Your task to perform on an android device: Go to Wikipedia Image 0: 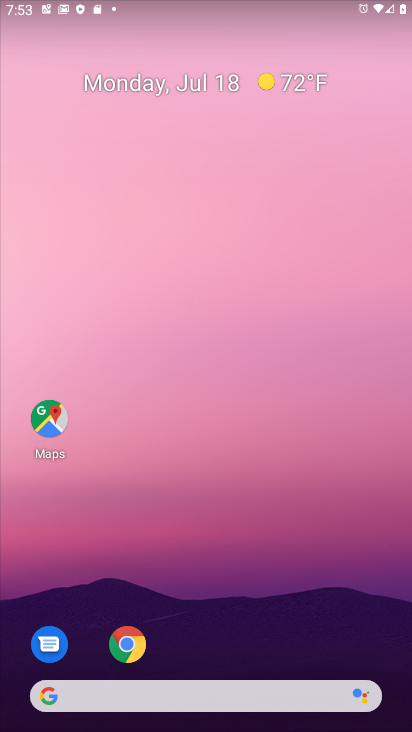
Step 0: press home button
Your task to perform on an android device: Go to Wikipedia Image 1: 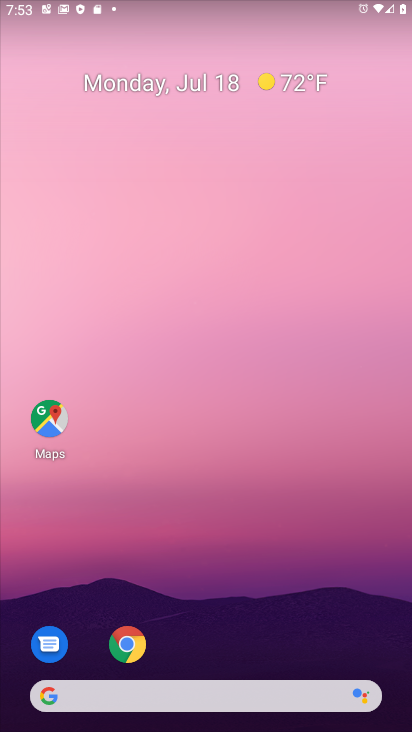
Step 1: drag from (376, 670) to (252, 52)
Your task to perform on an android device: Go to Wikipedia Image 2: 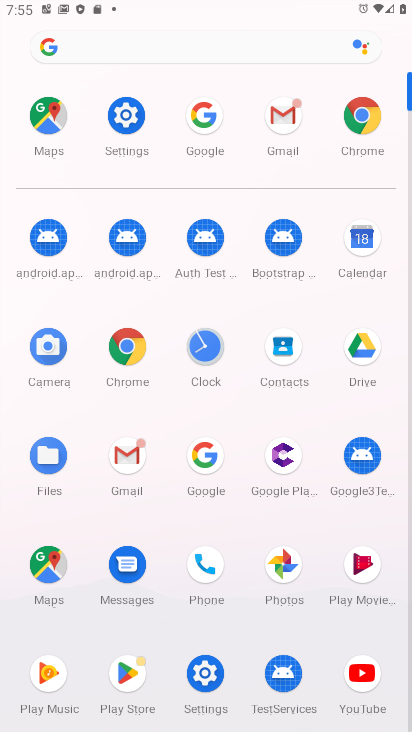
Step 2: click (204, 464)
Your task to perform on an android device: Go to Wikipedia Image 3: 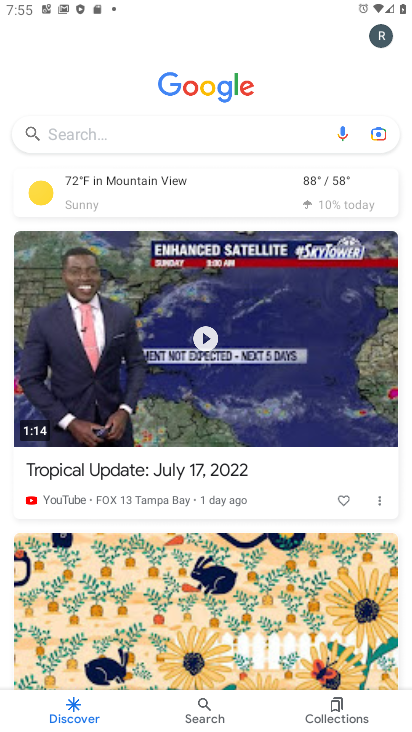
Step 3: click (114, 136)
Your task to perform on an android device: Go to Wikipedia Image 4: 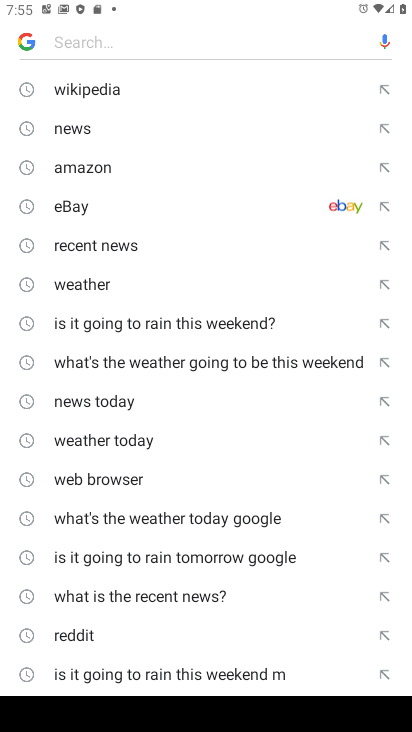
Step 4: click (112, 89)
Your task to perform on an android device: Go to Wikipedia Image 5: 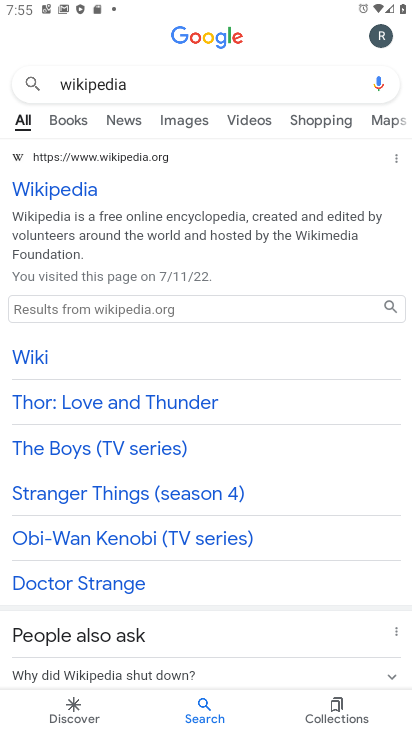
Step 5: task complete